Your task to perform on an android device: open a new tab in the chrome app Image 0: 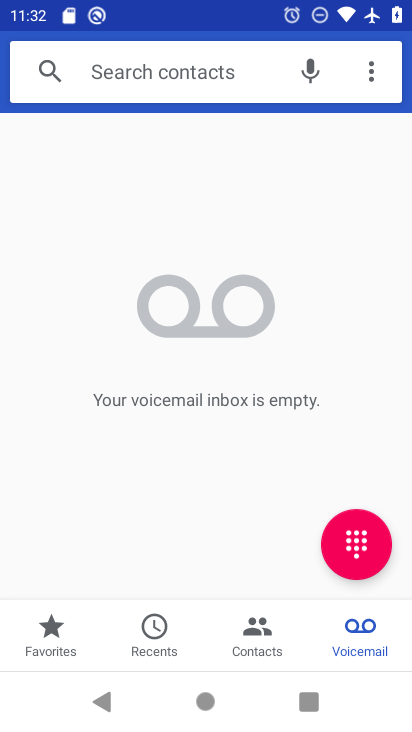
Step 0: press home button
Your task to perform on an android device: open a new tab in the chrome app Image 1: 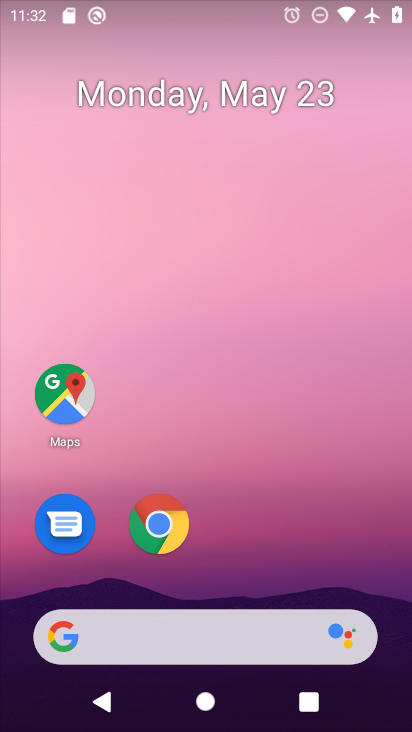
Step 1: click (168, 503)
Your task to perform on an android device: open a new tab in the chrome app Image 2: 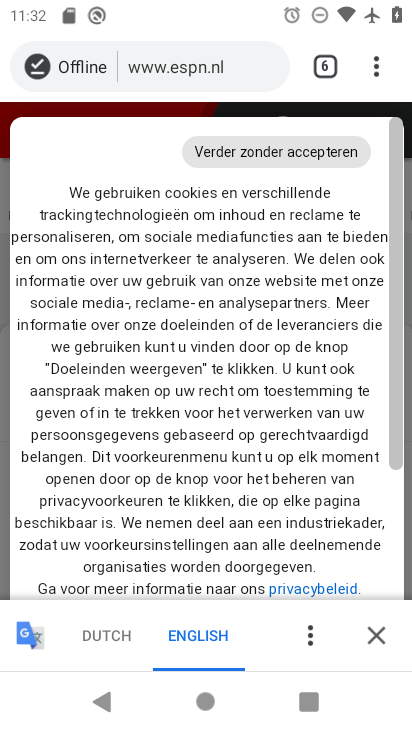
Step 2: click (329, 71)
Your task to perform on an android device: open a new tab in the chrome app Image 3: 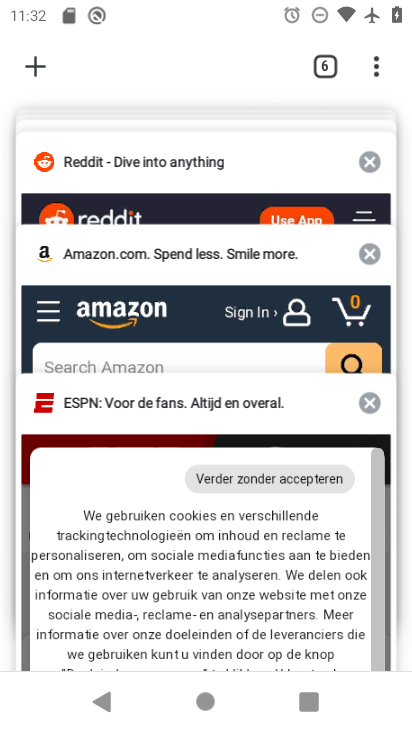
Step 3: click (31, 59)
Your task to perform on an android device: open a new tab in the chrome app Image 4: 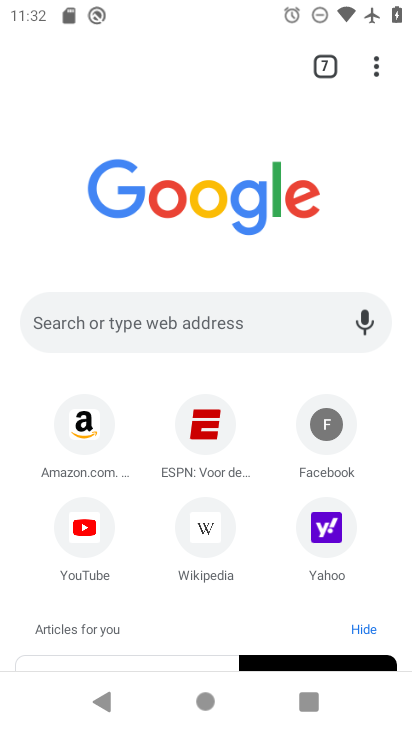
Step 4: task complete